Your task to perform on an android device: change notifications settings Image 0: 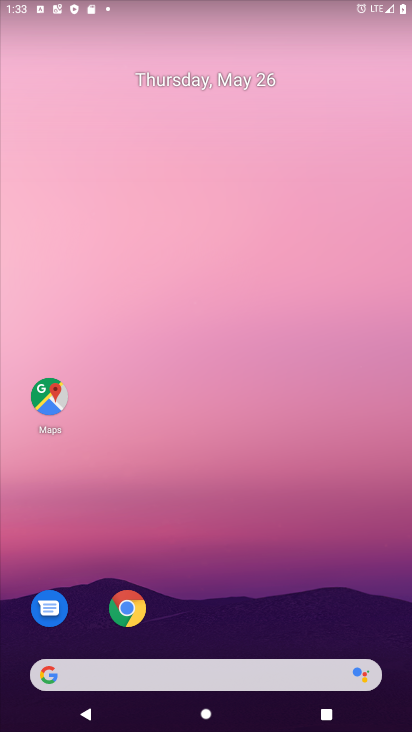
Step 0: drag from (375, 626) to (354, 228)
Your task to perform on an android device: change notifications settings Image 1: 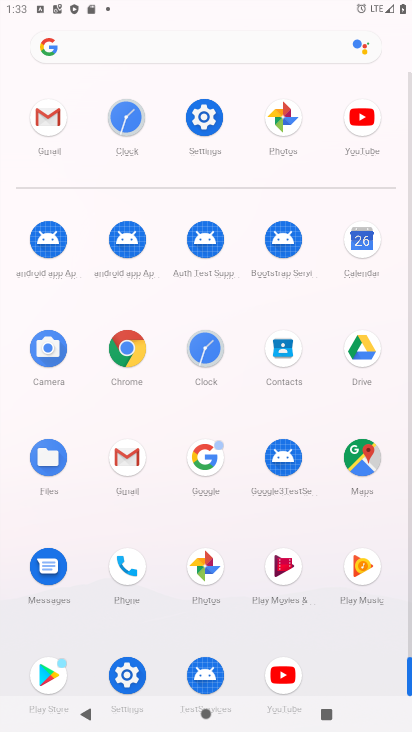
Step 1: click (127, 676)
Your task to perform on an android device: change notifications settings Image 2: 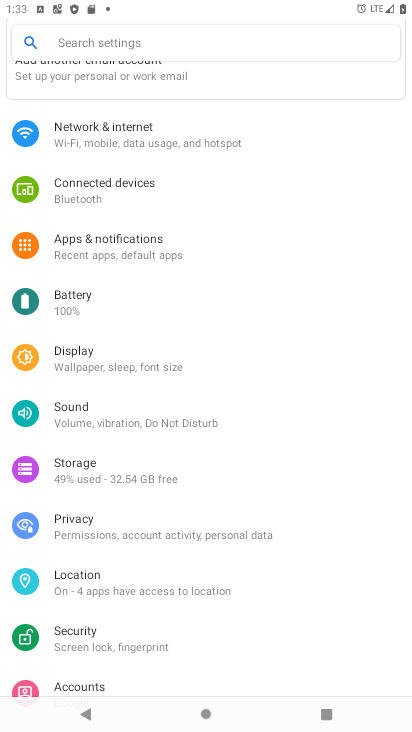
Step 2: click (110, 242)
Your task to perform on an android device: change notifications settings Image 3: 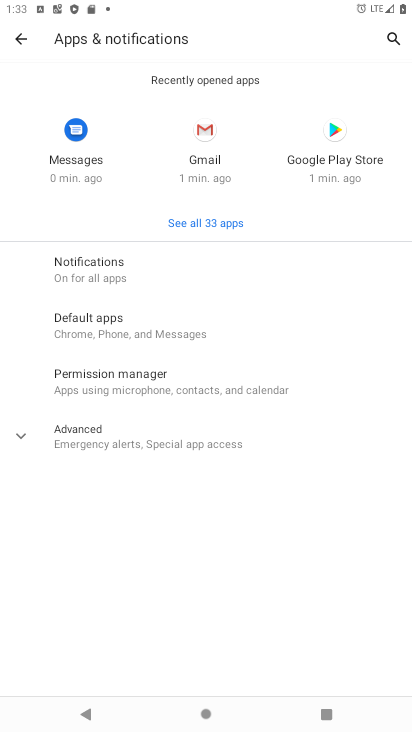
Step 3: click (102, 269)
Your task to perform on an android device: change notifications settings Image 4: 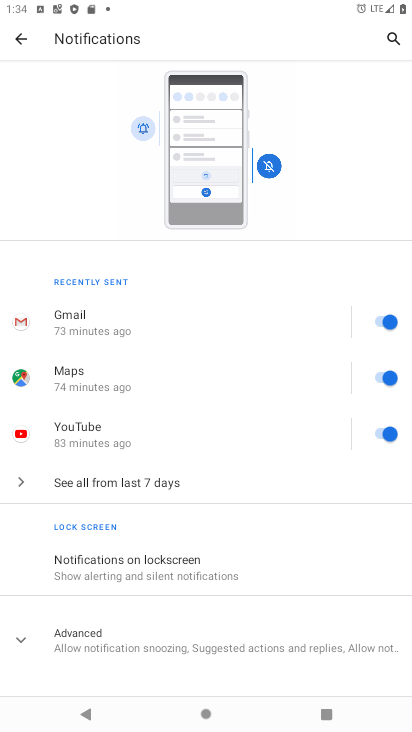
Step 4: drag from (161, 581) to (167, 359)
Your task to perform on an android device: change notifications settings Image 5: 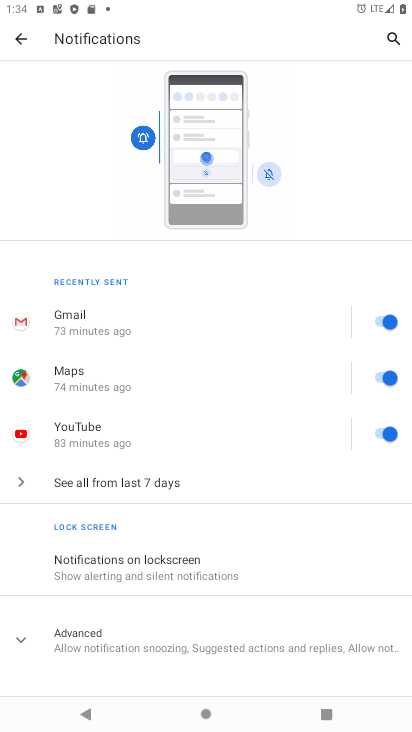
Step 5: click (22, 632)
Your task to perform on an android device: change notifications settings Image 6: 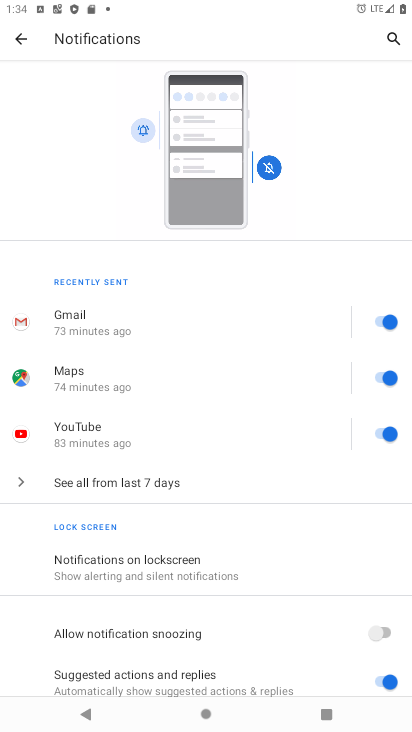
Step 6: click (382, 630)
Your task to perform on an android device: change notifications settings Image 7: 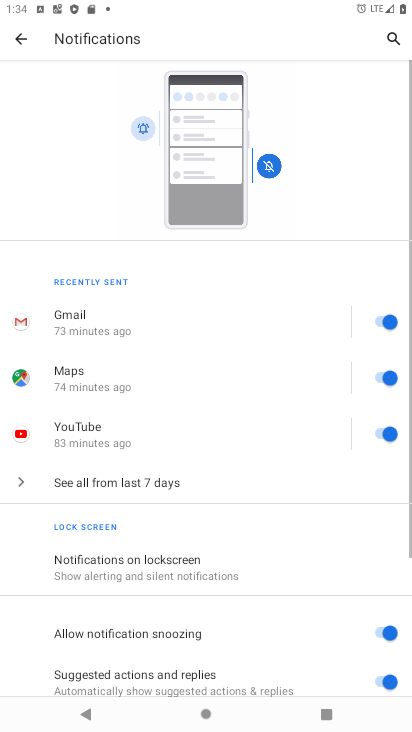
Step 7: drag from (328, 664) to (318, 286)
Your task to perform on an android device: change notifications settings Image 8: 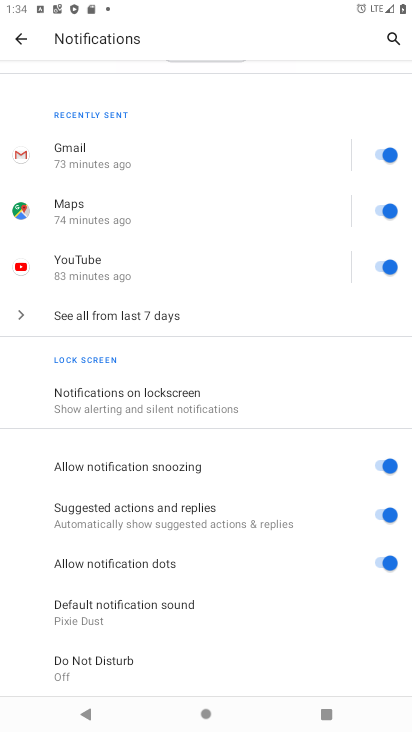
Step 8: click (376, 562)
Your task to perform on an android device: change notifications settings Image 9: 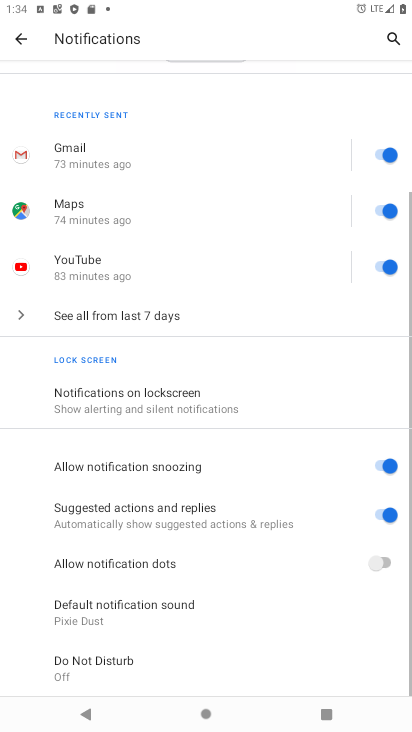
Step 9: task complete